Your task to perform on an android device: Open Android settings Image 0: 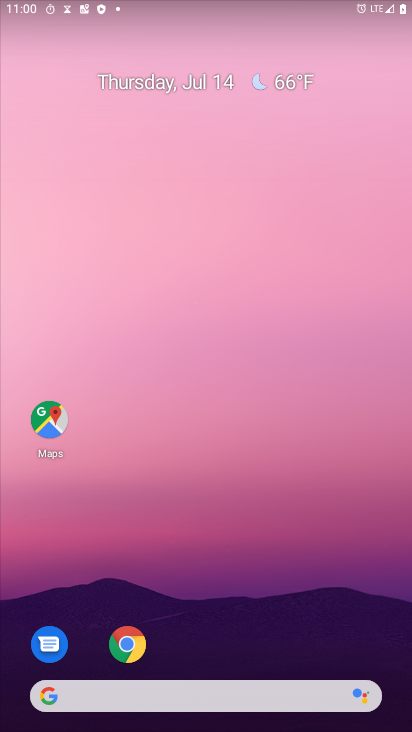
Step 0: drag from (245, 687) to (181, 97)
Your task to perform on an android device: Open Android settings Image 1: 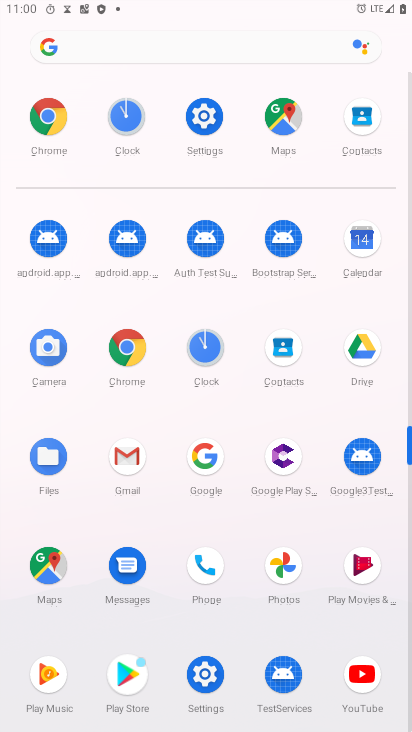
Step 1: click (209, 676)
Your task to perform on an android device: Open Android settings Image 2: 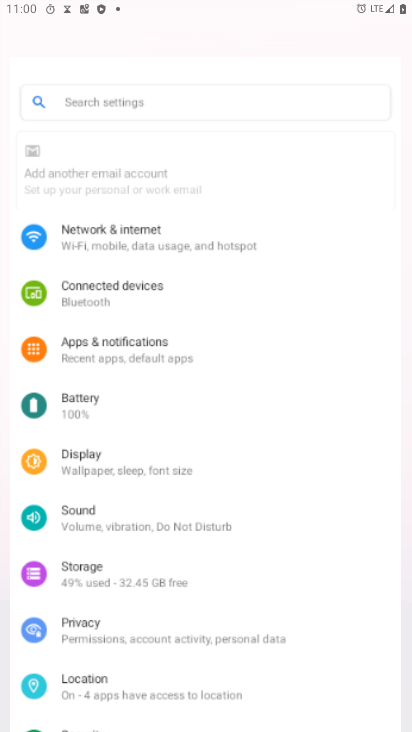
Step 2: click (204, 679)
Your task to perform on an android device: Open Android settings Image 3: 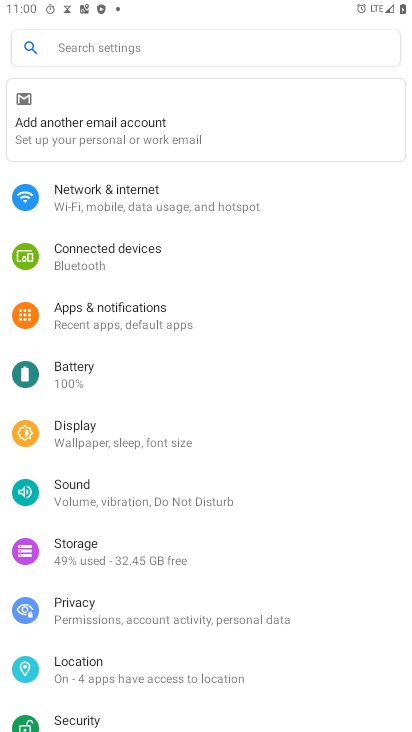
Step 3: drag from (97, 566) to (92, 250)
Your task to perform on an android device: Open Android settings Image 4: 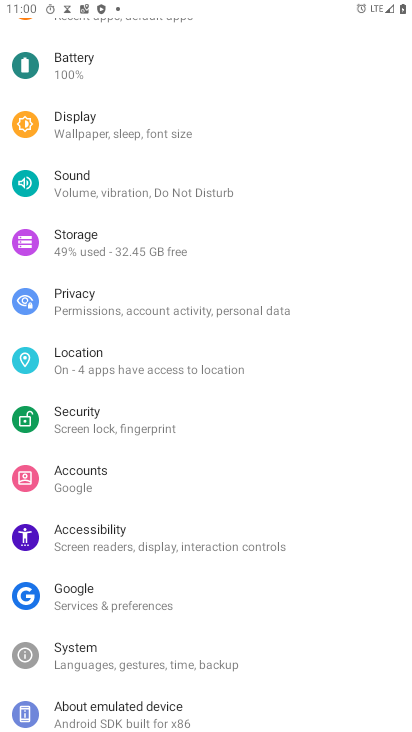
Step 4: drag from (169, 494) to (182, 222)
Your task to perform on an android device: Open Android settings Image 5: 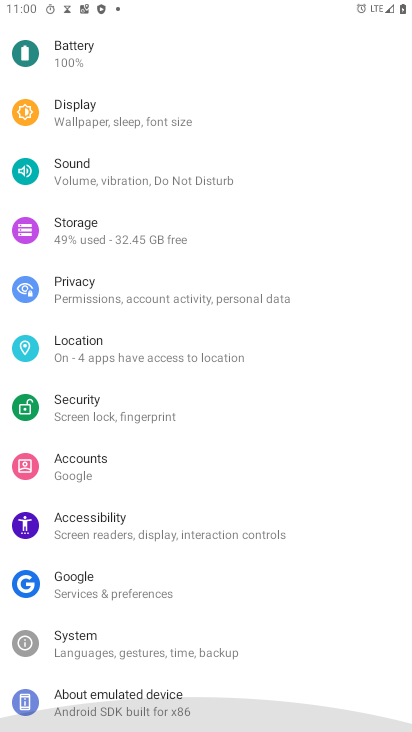
Step 5: drag from (206, 500) to (206, 231)
Your task to perform on an android device: Open Android settings Image 6: 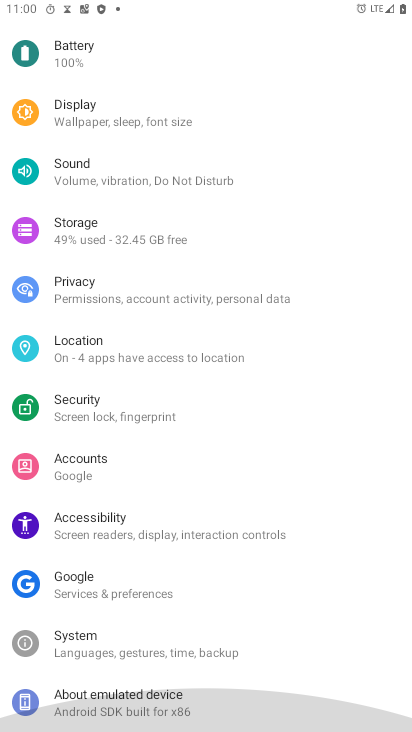
Step 6: drag from (186, 562) to (186, 314)
Your task to perform on an android device: Open Android settings Image 7: 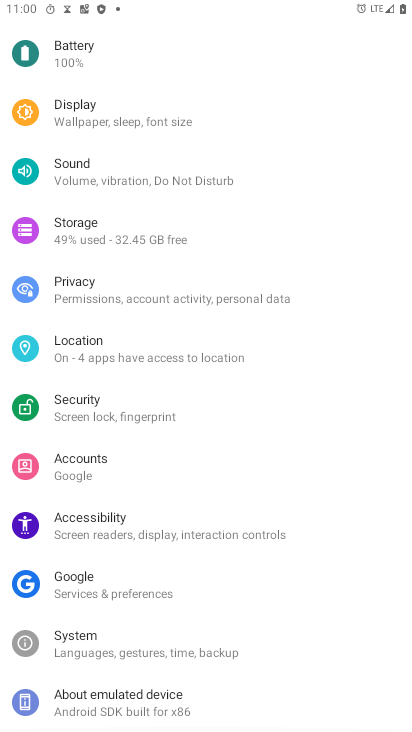
Step 7: click (73, 703)
Your task to perform on an android device: Open Android settings Image 8: 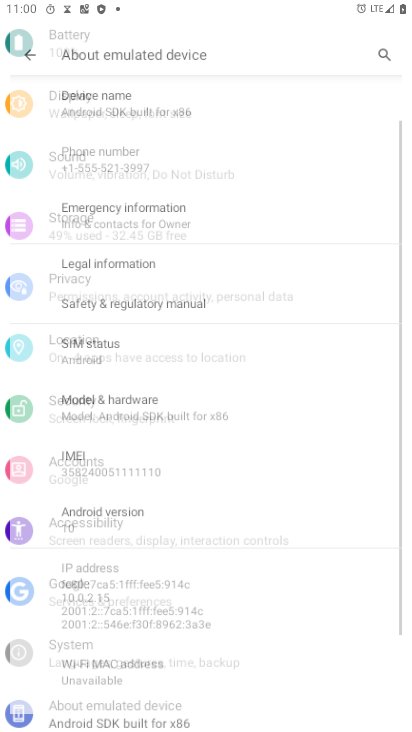
Step 8: task complete